Your task to perform on an android device: stop showing notifications on the lock screen Image 0: 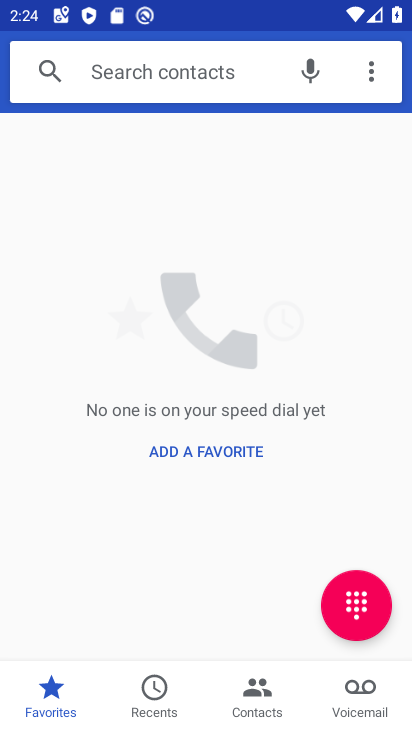
Step 0: press home button
Your task to perform on an android device: stop showing notifications on the lock screen Image 1: 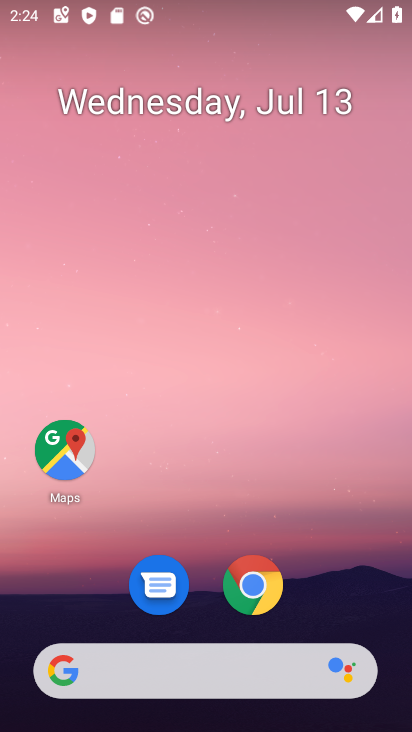
Step 1: drag from (167, 673) to (294, 0)
Your task to perform on an android device: stop showing notifications on the lock screen Image 2: 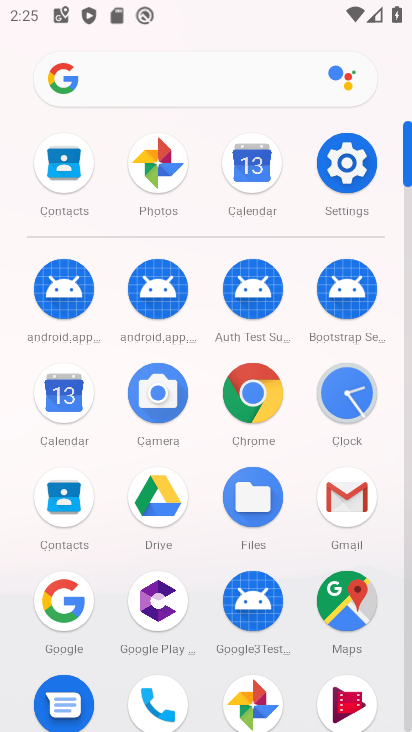
Step 2: click (345, 165)
Your task to perform on an android device: stop showing notifications on the lock screen Image 3: 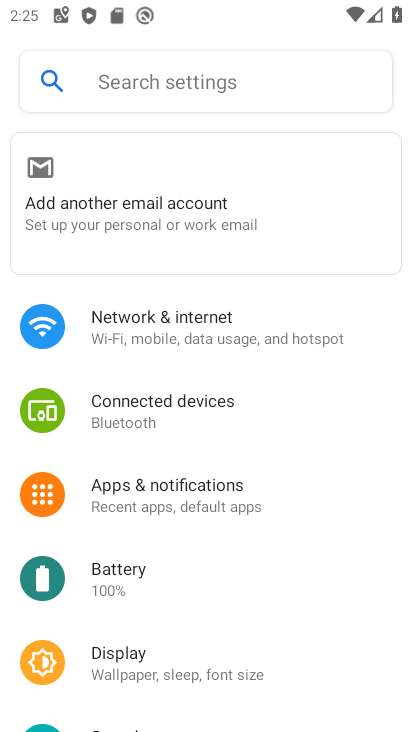
Step 3: click (191, 511)
Your task to perform on an android device: stop showing notifications on the lock screen Image 4: 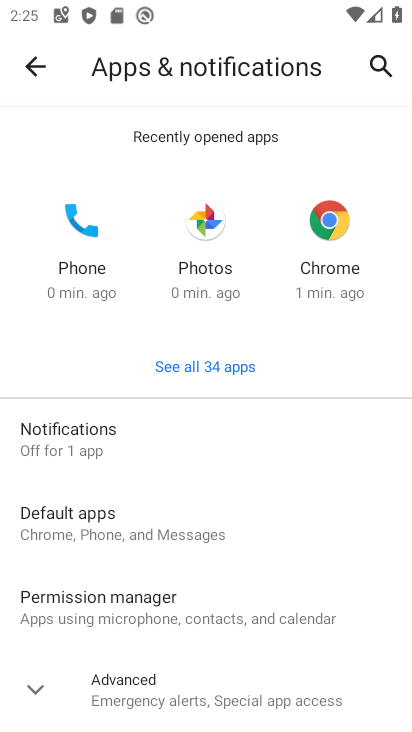
Step 4: click (91, 449)
Your task to perform on an android device: stop showing notifications on the lock screen Image 5: 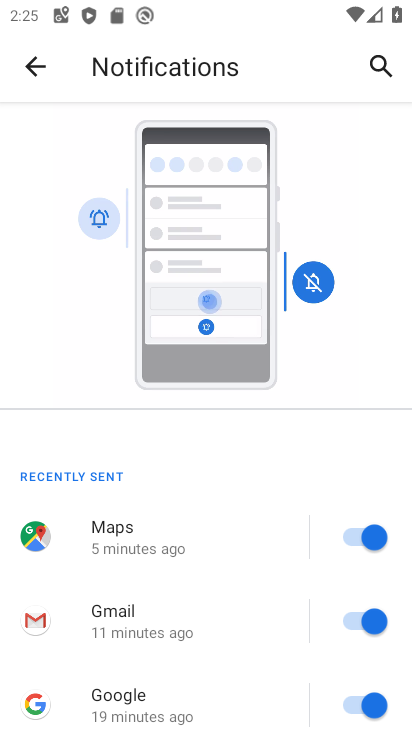
Step 5: drag from (229, 664) to (366, 226)
Your task to perform on an android device: stop showing notifications on the lock screen Image 6: 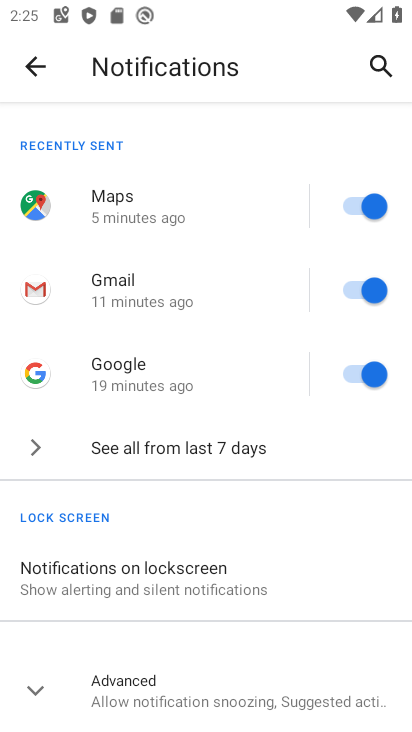
Step 6: click (195, 576)
Your task to perform on an android device: stop showing notifications on the lock screen Image 7: 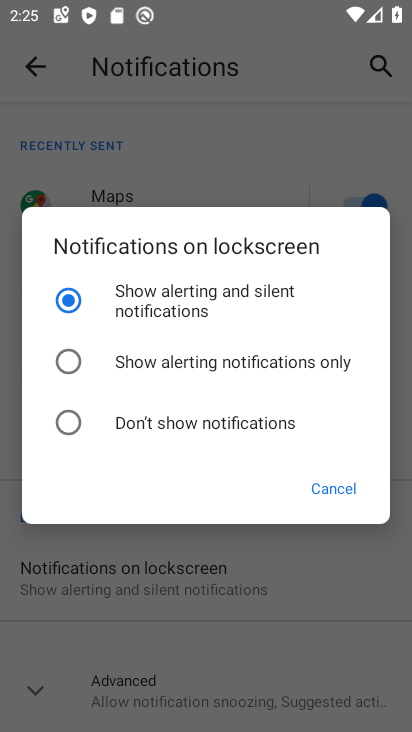
Step 7: click (68, 416)
Your task to perform on an android device: stop showing notifications on the lock screen Image 8: 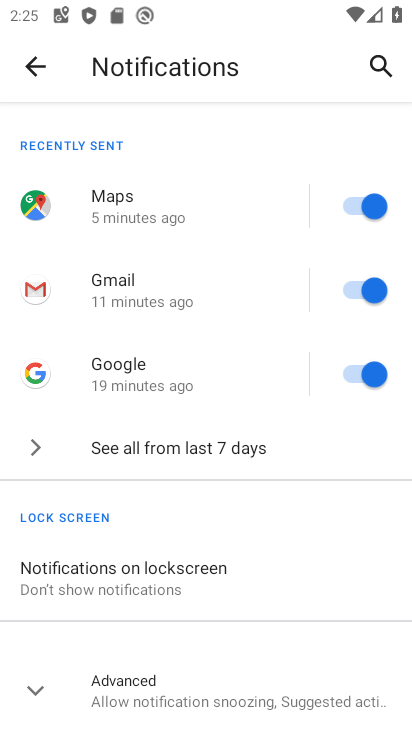
Step 8: task complete